Your task to perform on an android device: Open Amazon Image 0: 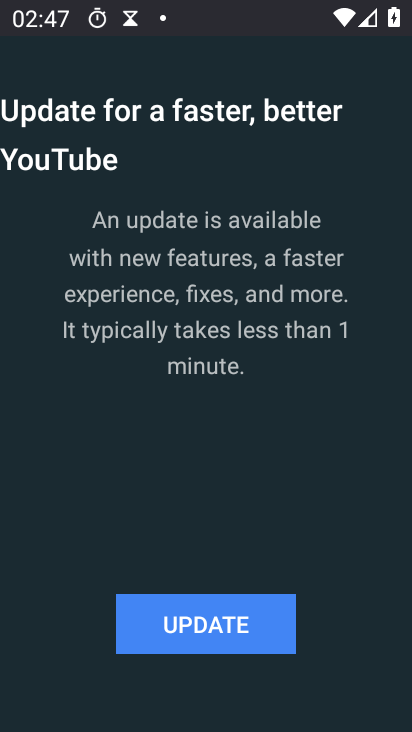
Step 0: press home button
Your task to perform on an android device: Open Amazon Image 1: 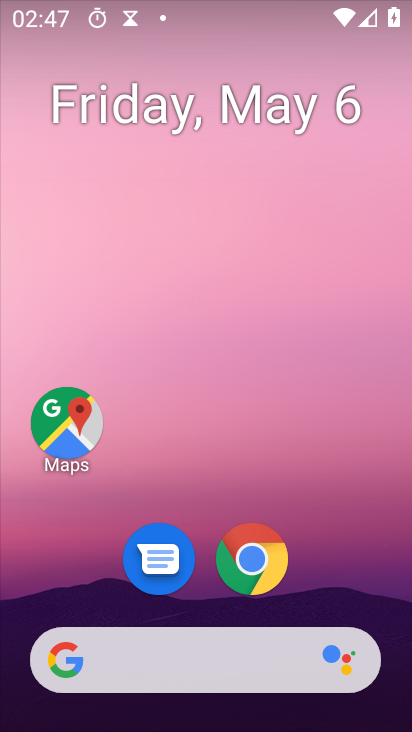
Step 1: drag from (297, 615) to (345, 4)
Your task to perform on an android device: Open Amazon Image 2: 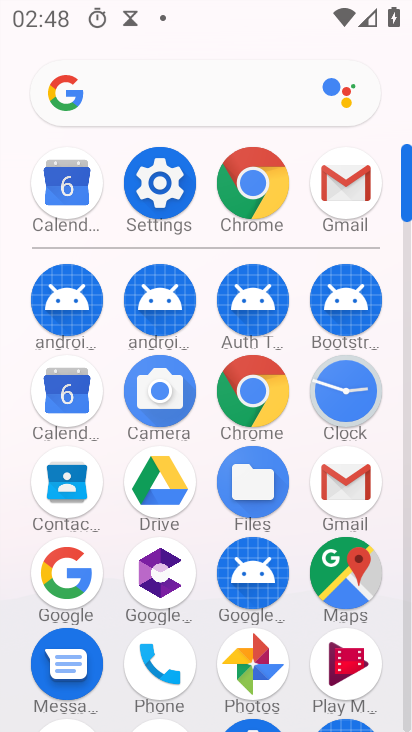
Step 2: click (274, 397)
Your task to perform on an android device: Open Amazon Image 3: 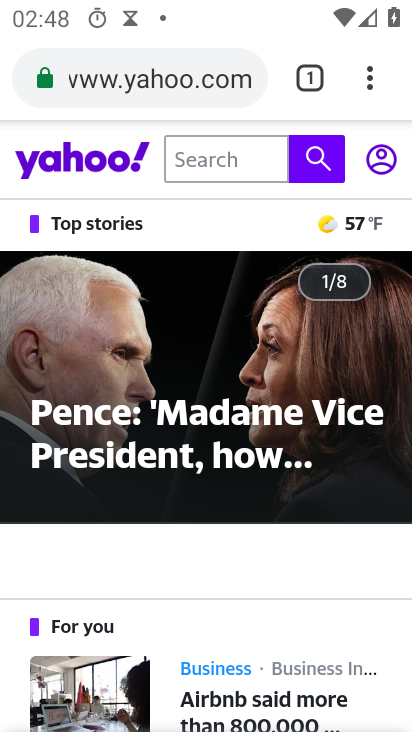
Step 3: click (208, 78)
Your task to perform on an android device: Open Amazon Image 4: 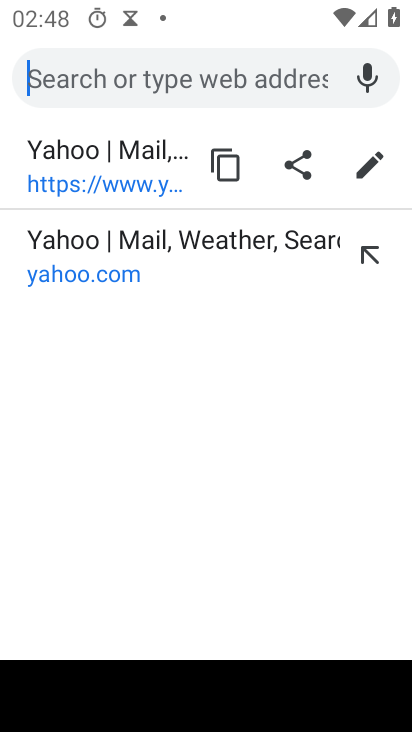
Step 4: type "amazon"
Your task to perform on an android device: Open Amazon Image 5: 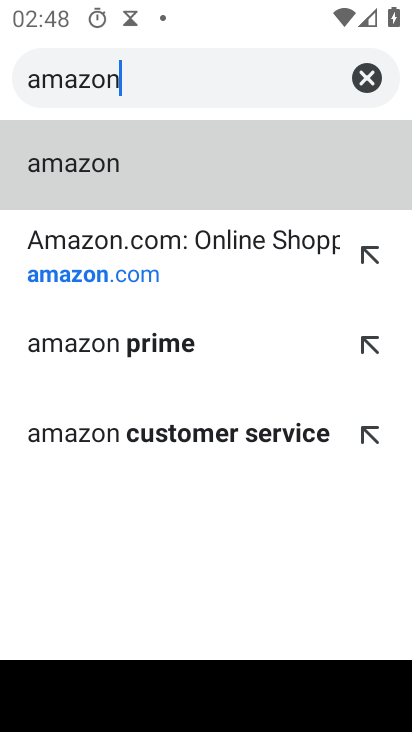
Step 5: click (218, 254)
Your task to perform on an android device: Open Amazon Image 6: 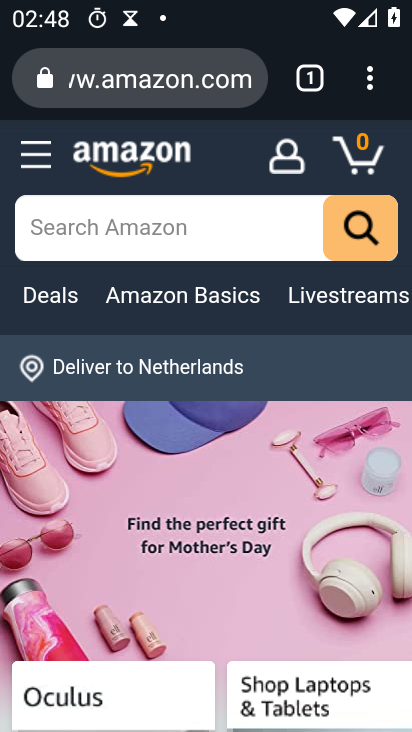
Step 6: task complete